Your task to perform on an android device: change notification settings in the gmail app Image 0: 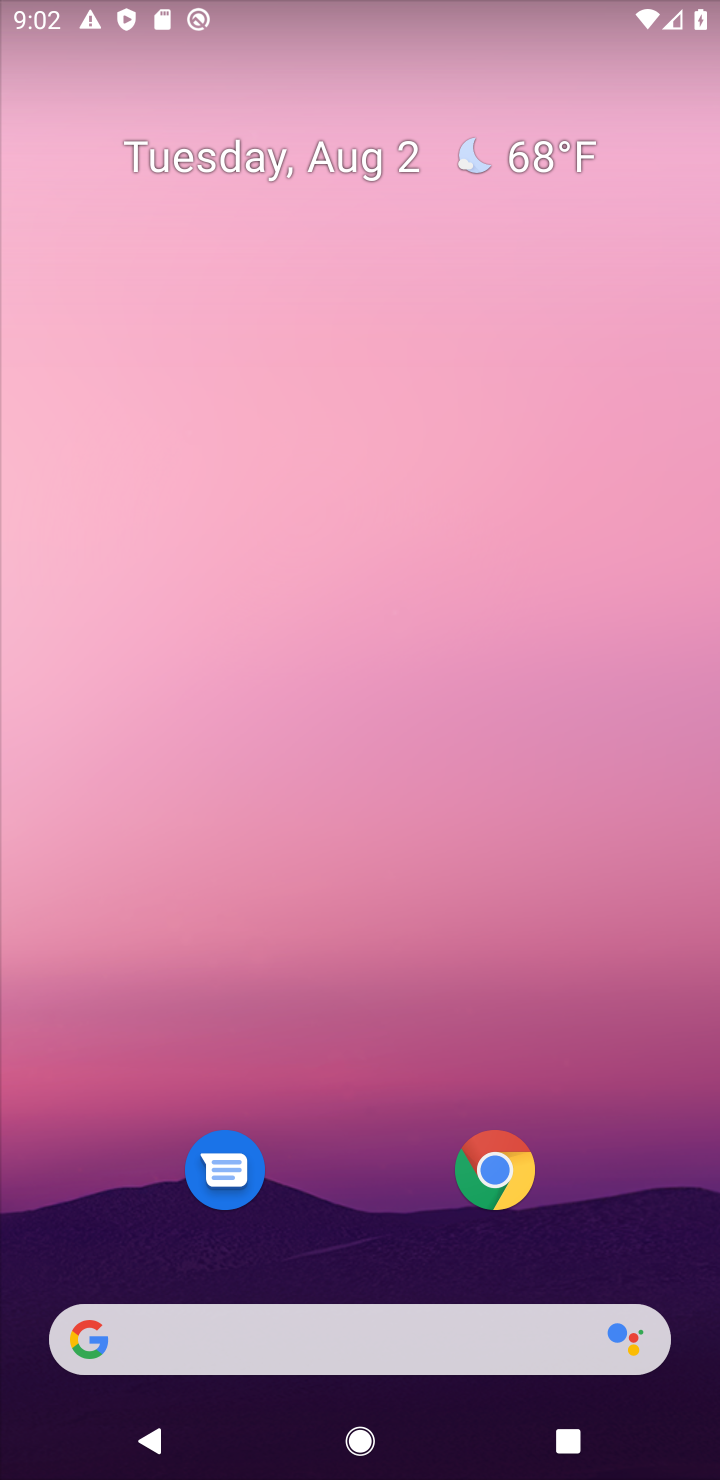
Step 0: drag from (325, 1069) to (466, 176)
Your task to perform on an android device: change notification settings in the gmail app Image 1: 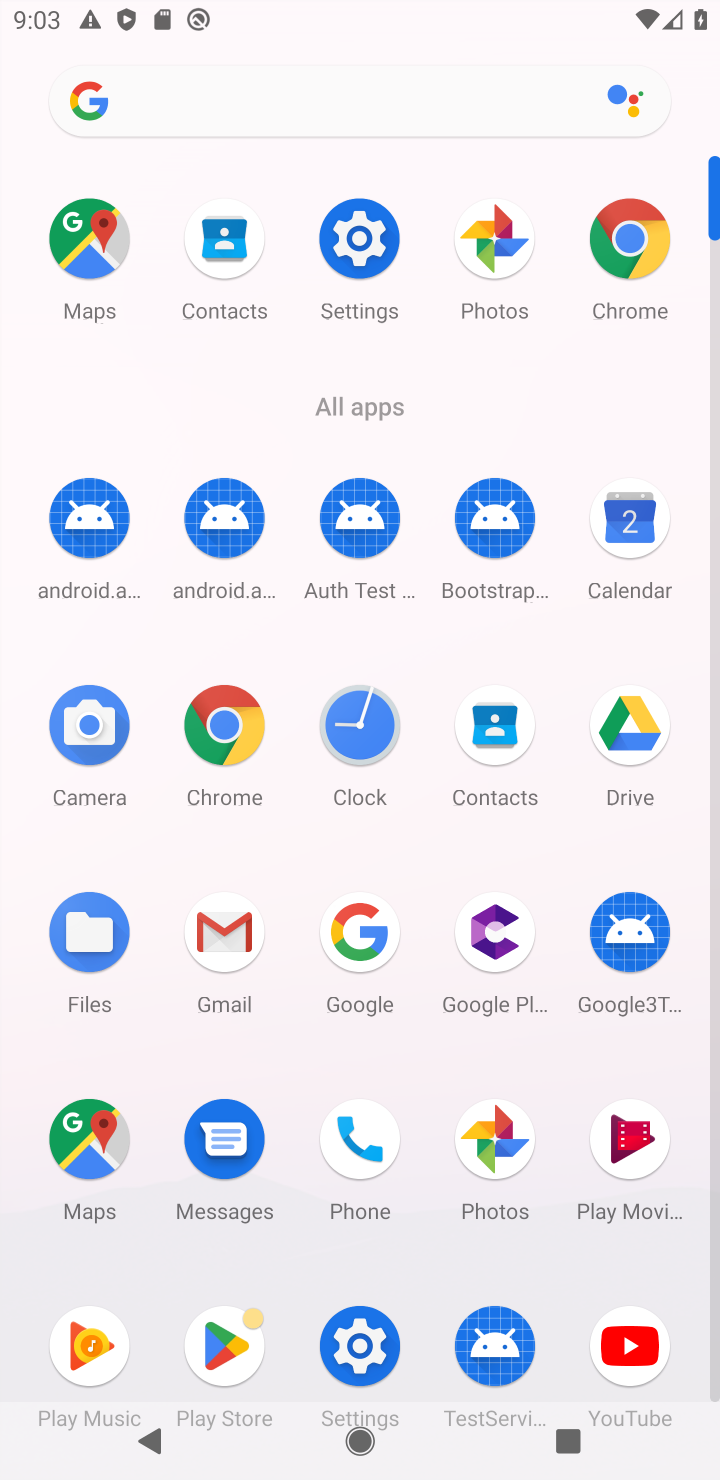
Step 1: drag from (429, 779) to (473, 680)
Your task to perform on an android device: change notification settings in the gmail app Image 2: 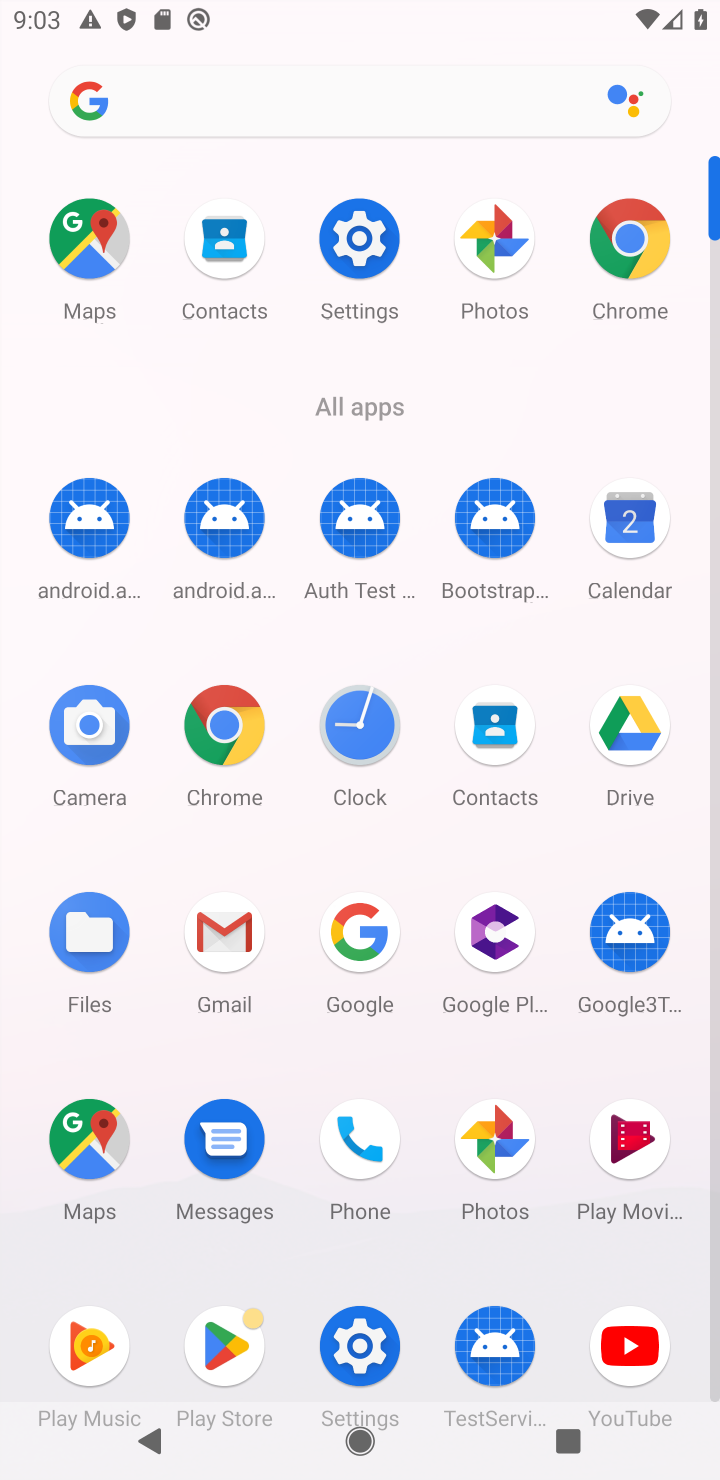
Step 2: click (209, 928)
Your task to perform on an android device: change notification settings in the gmail app Image 3: 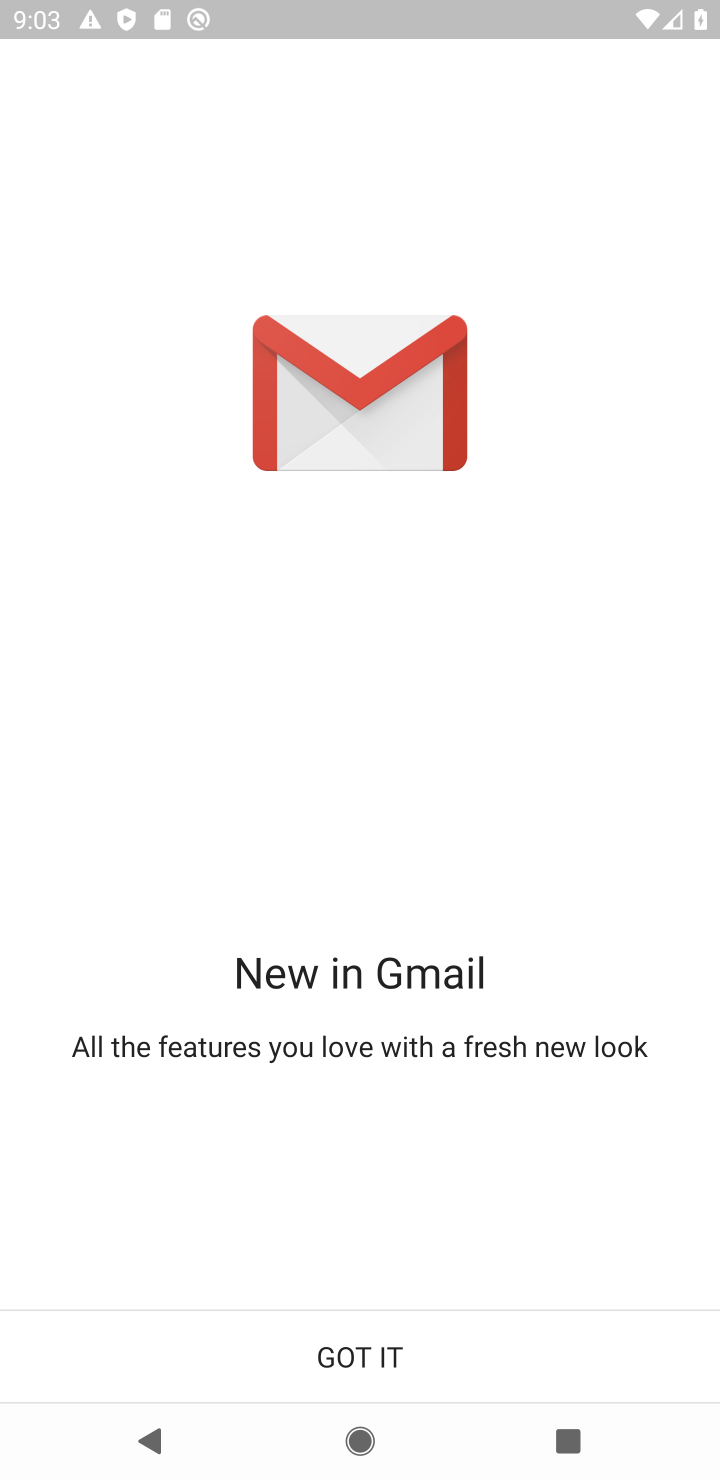
Step 3: click (394, 1336)
Your task to perform on an android device: change notification settings in the gmail app Image 4: 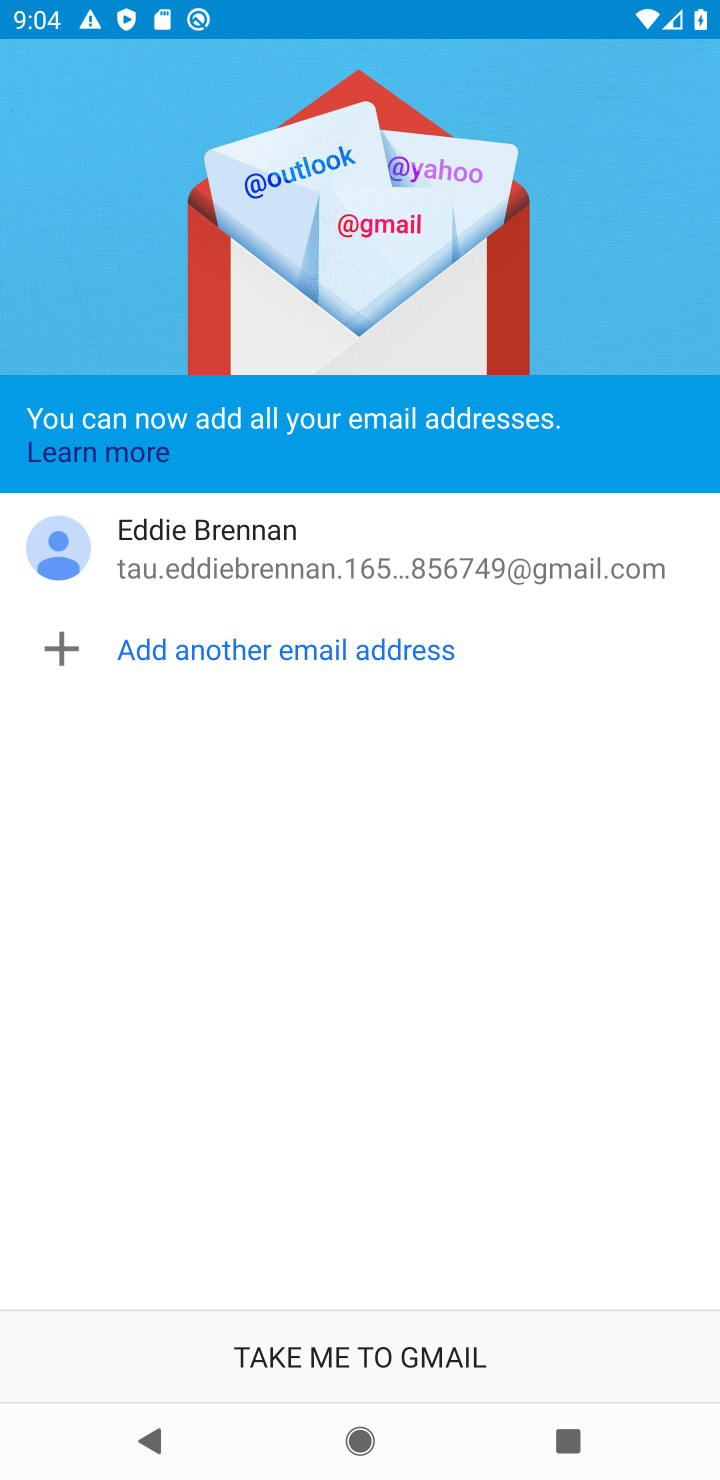
Step 4: click (362, 1354)
Your task to perform on an android device: change notification settings in the gmail app Image 5: 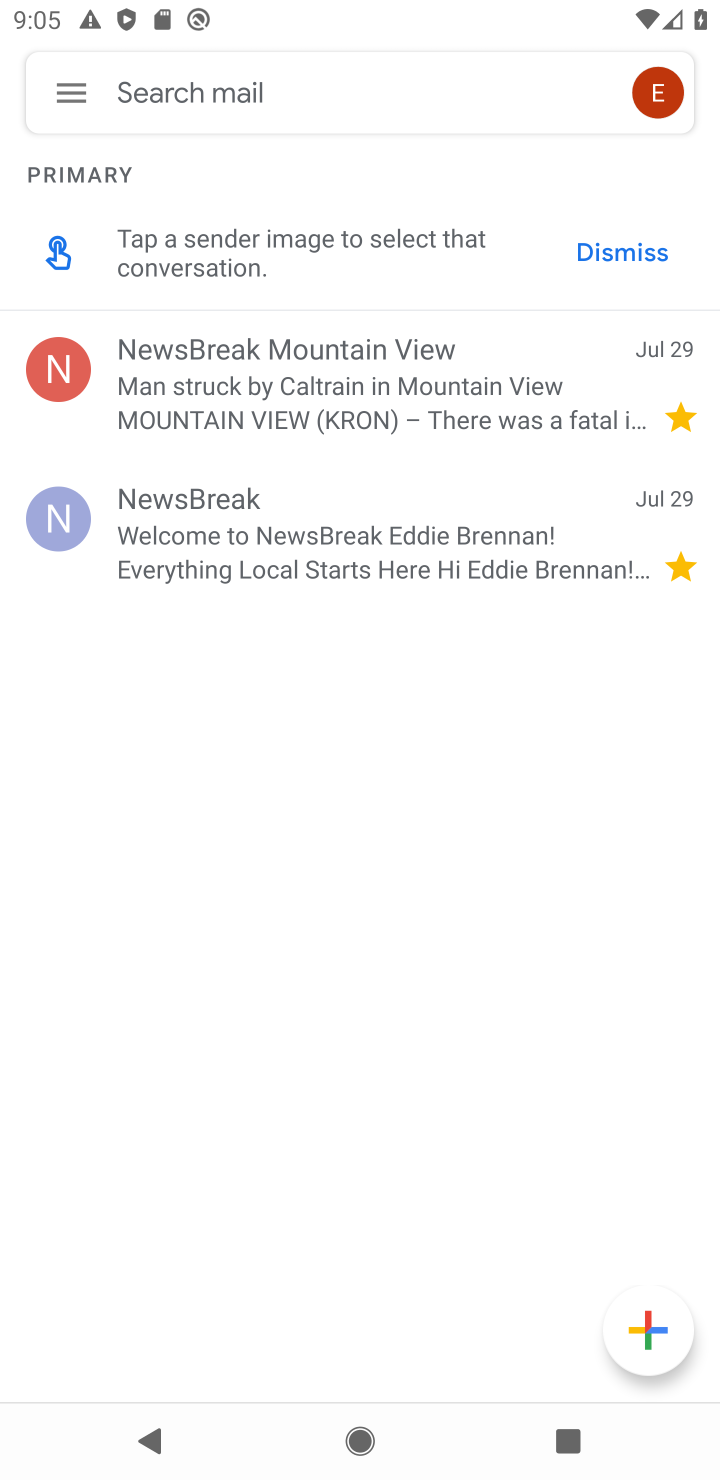
Step 5: click (65, 87)
Your task to perform on an android device: change notification settings in the gmail app Image 6: 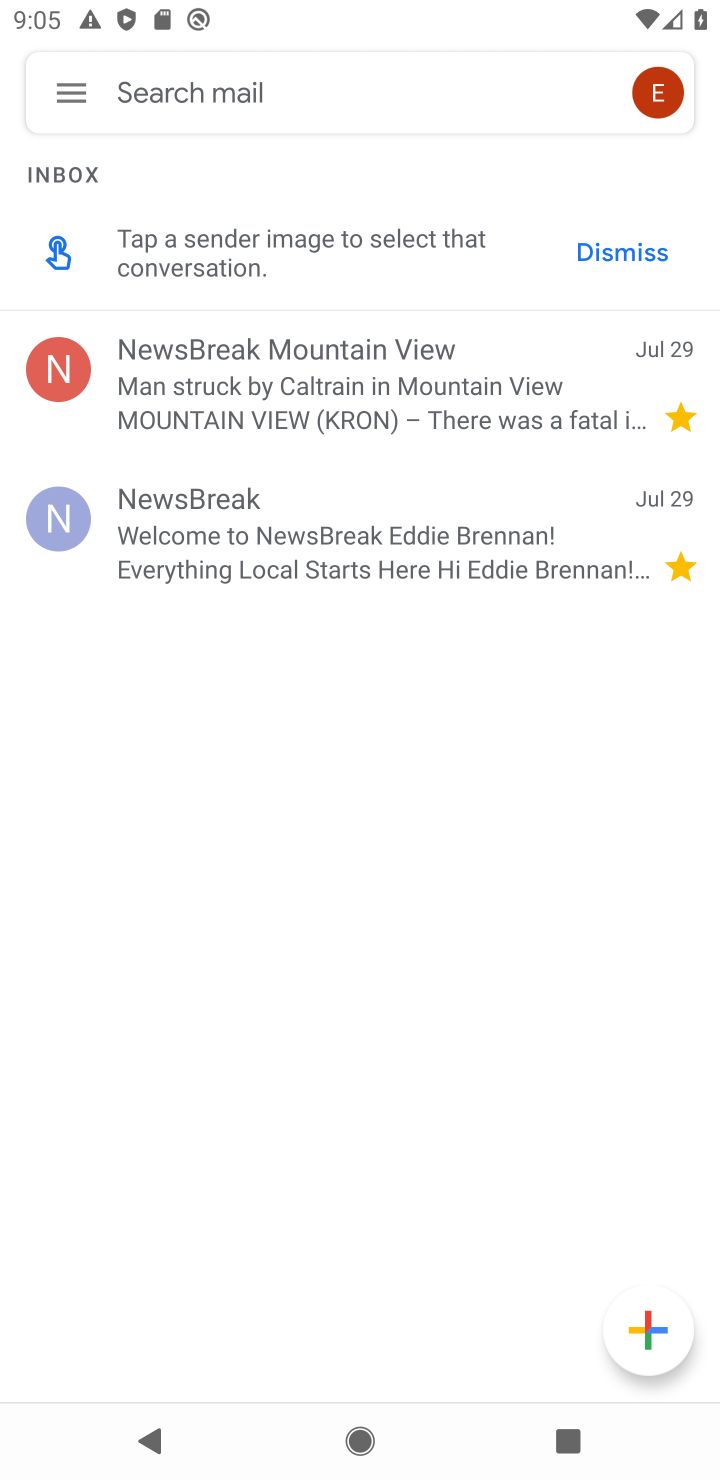
Step 6: click (72, 87)
Your task to perform on an android device: change notification settings in the gmail app Image 7: 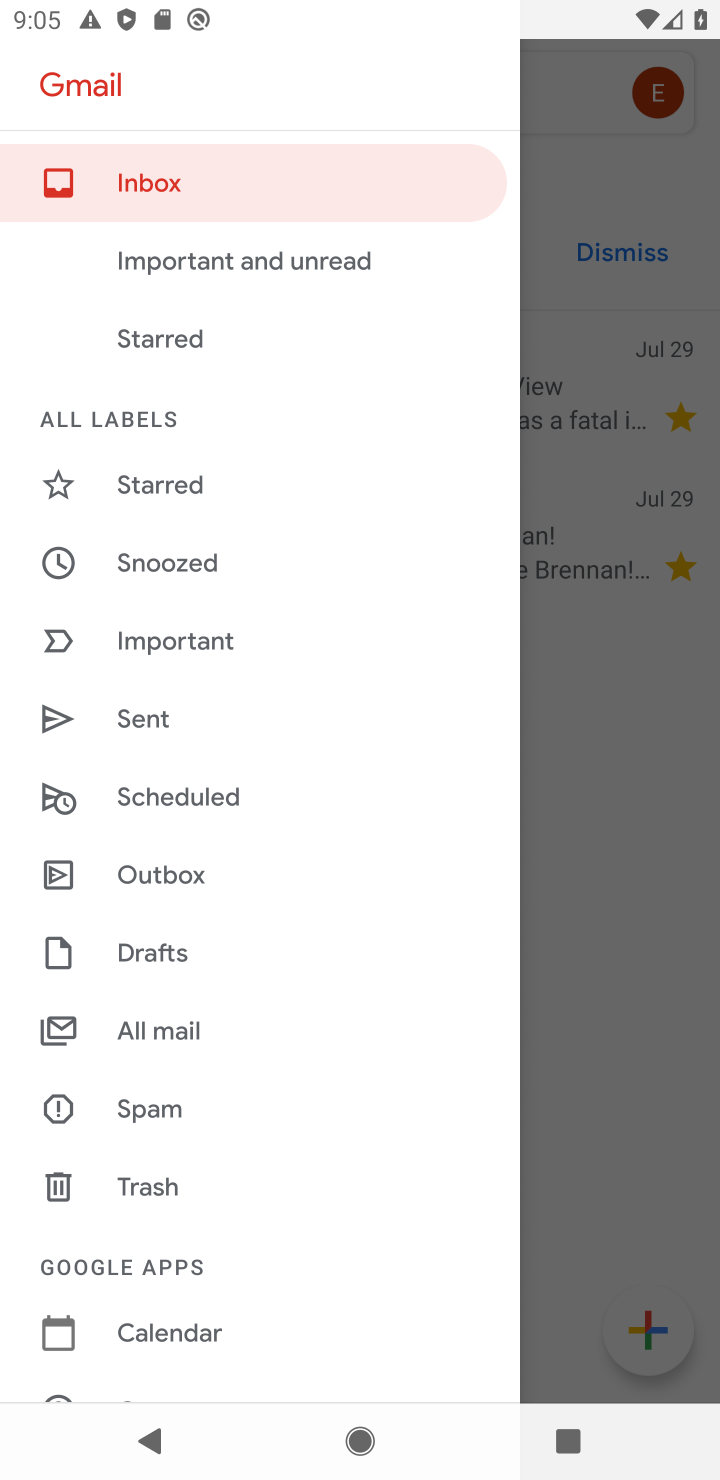
Step 7: drag from (182, 1010) to (200, 669)
Your task to perform on an android device: change notification settings in the gmail app Image 8: 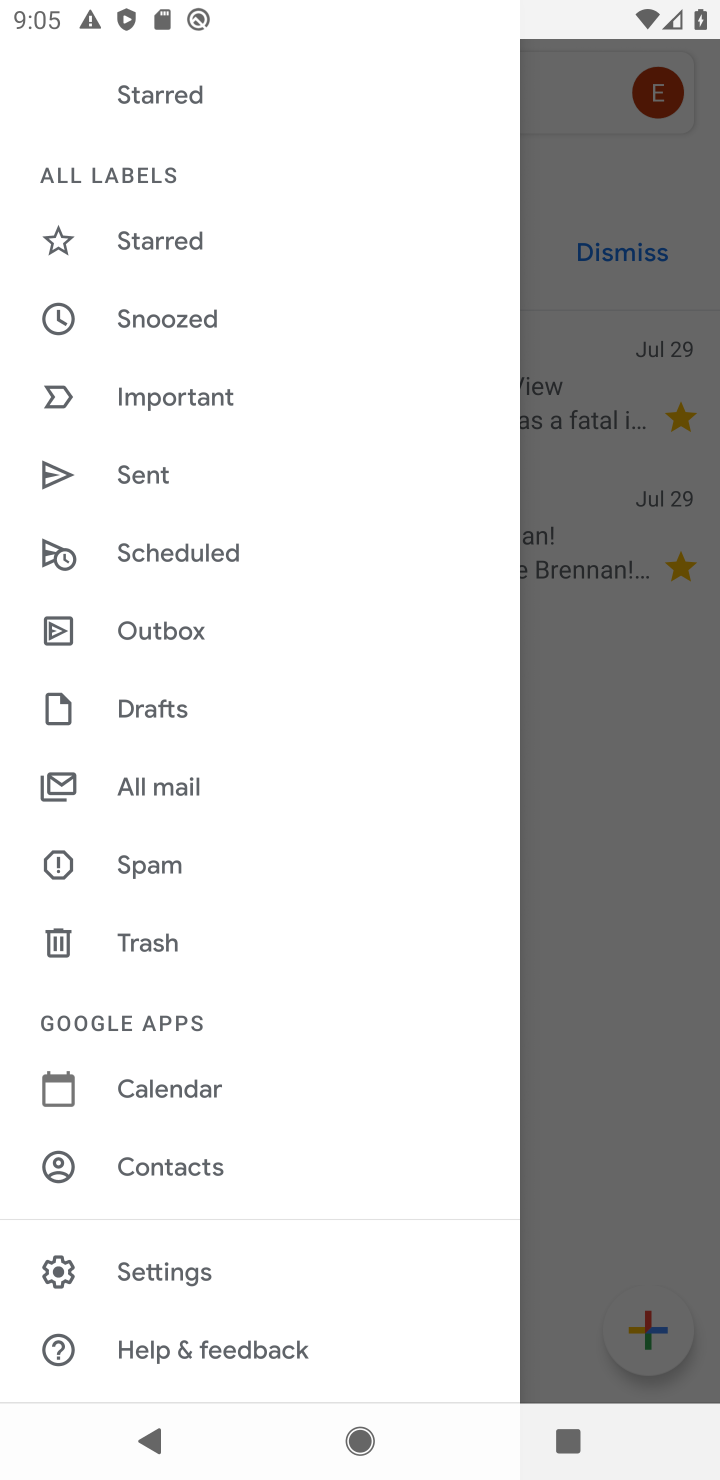
Step 8: click (140, 1285)
Your task to perform on an android device: change notification settings in the gmail app Image 9: 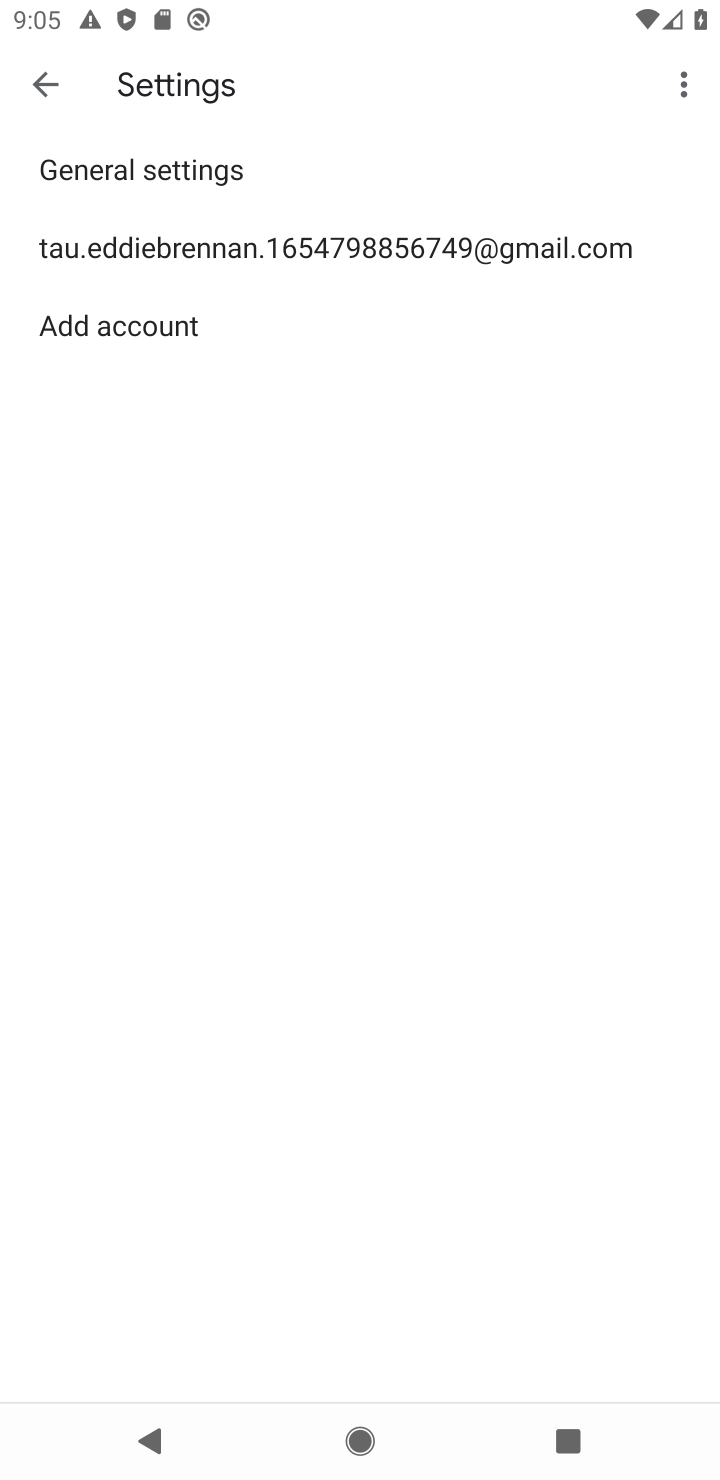
Step 9: click (173, 247)
Your task to perform on an android device: change notification settings in the gmail app Image 10: 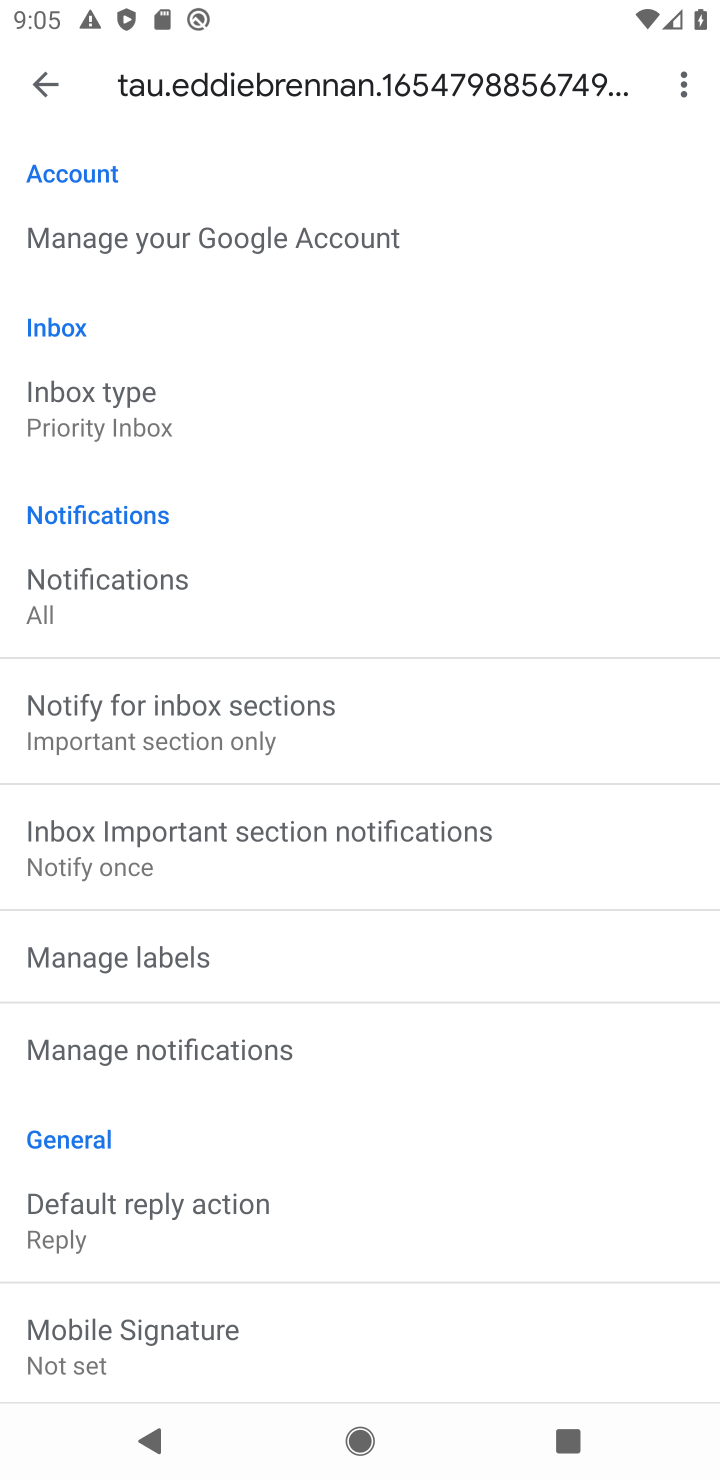
Step 10: click (121, 1054)
Your task to perform on an android device: change notification settings in the gmail app Image 11: 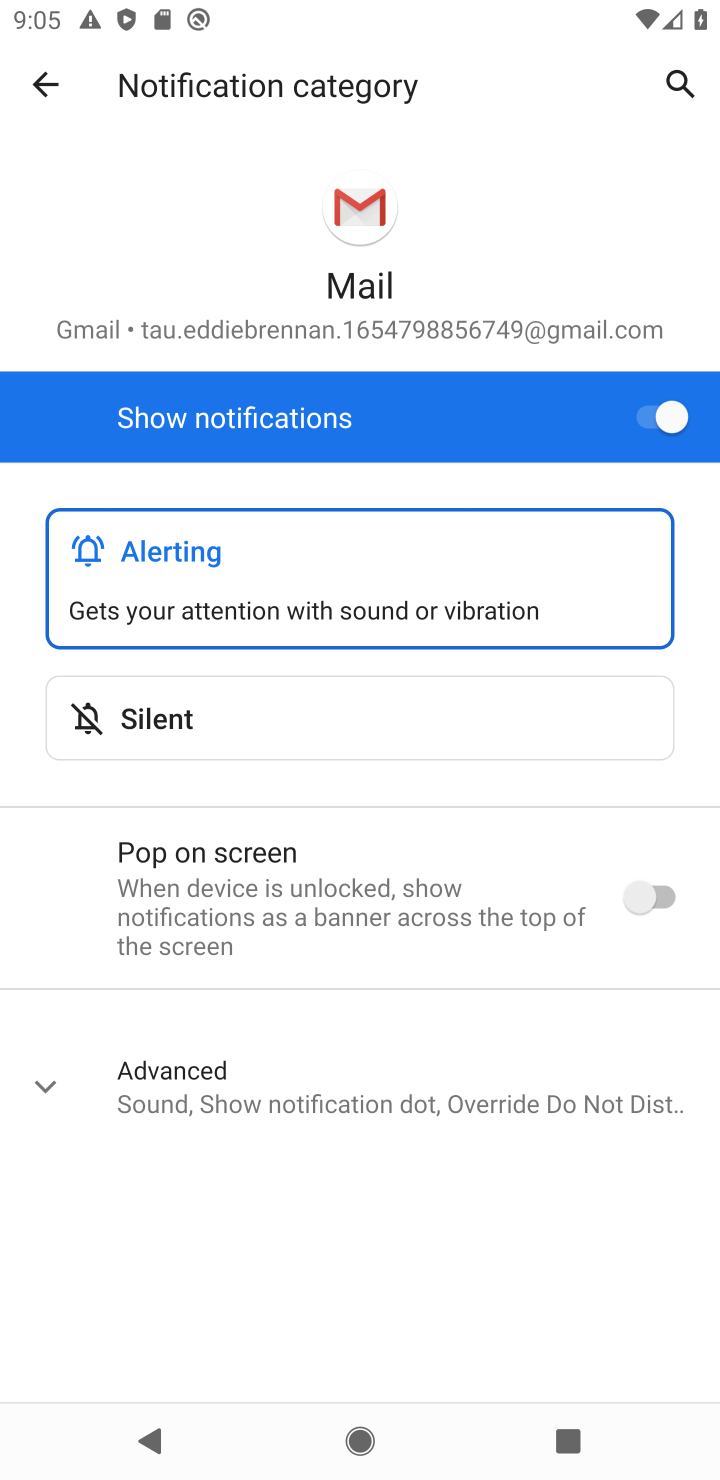
Step 11: click (648, 410)
Your task to perform on an android device: change notification settings in the gmail app Image 12: 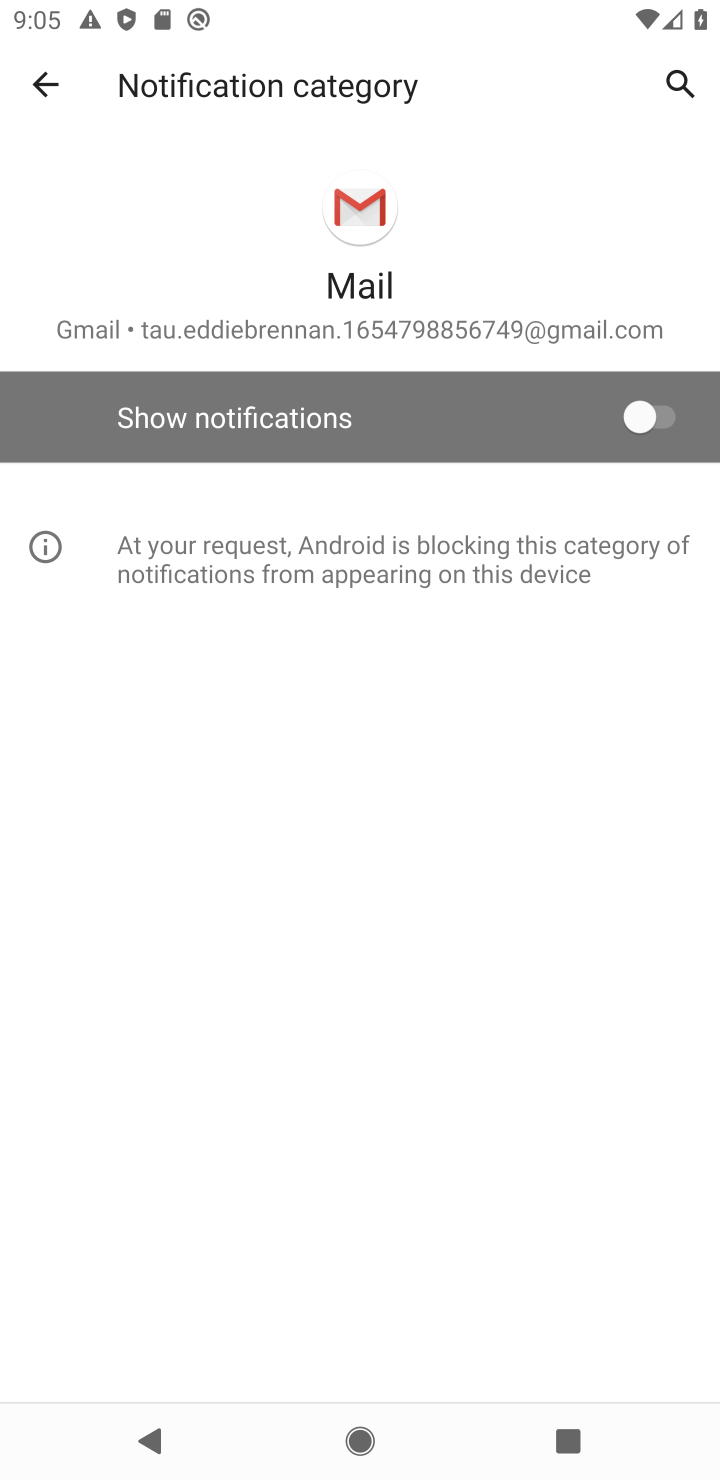
Step 12: task complete